Your task to perform on an android device: add a contact in the contacts app Image 0: 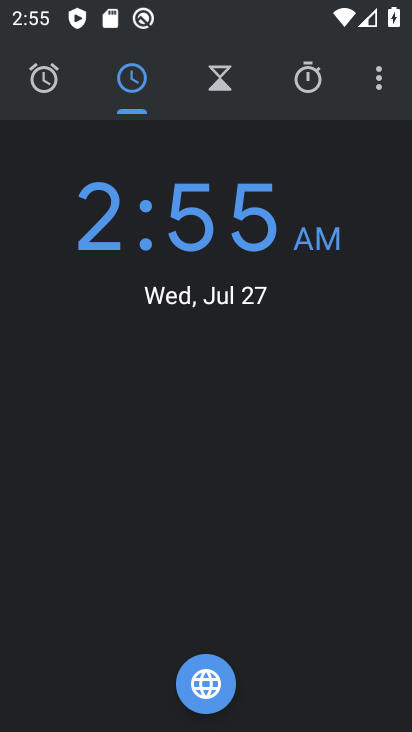
Step 0: press back button
Your task to perform on an android device: add a contact in the contacts app Image 1: 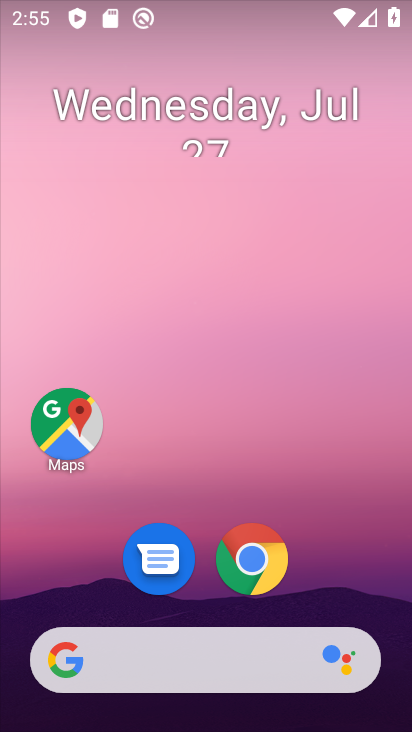
Step 1: drag from (87, 583) to (239, 53)
Your task to perform on an android device: add a contact in the contacts app Image 2: 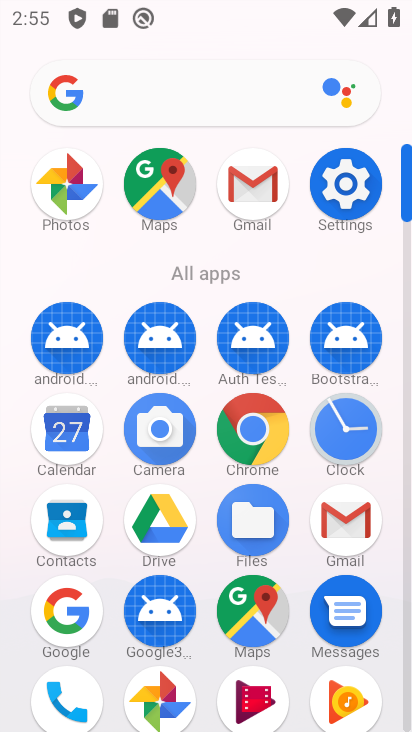
Step 2: click (75, 528)
Your task to perform on an android device: add a contact in the contacts app Image 3: 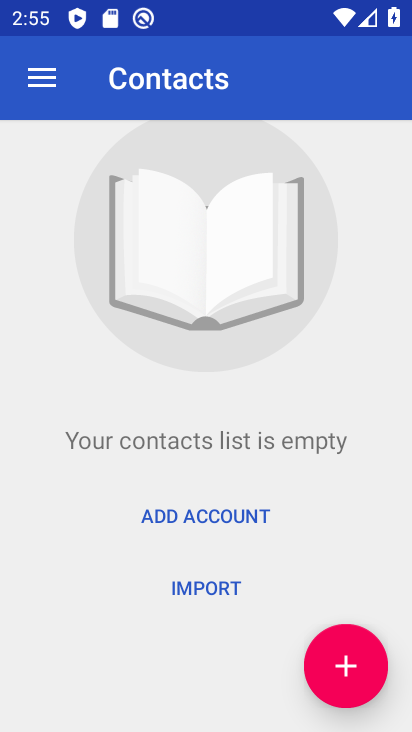
Step 3: click (332, 635)
Your task to perform on an android device: add a contact in the contacts app Image 4: 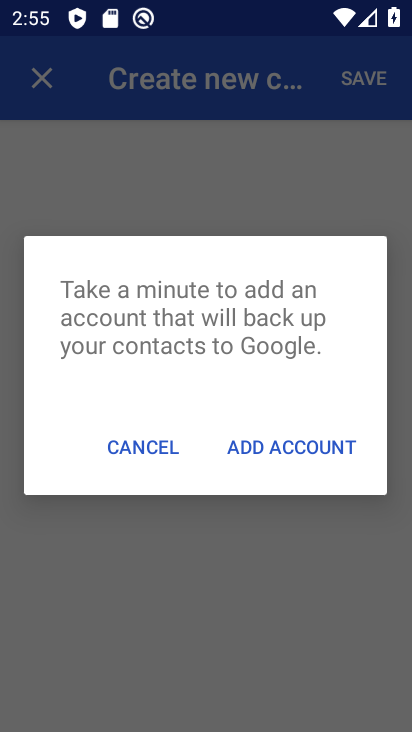
Step 4: click (121, 457)
Your task to perform on an android device: add a contact in the contacts app Image 5: 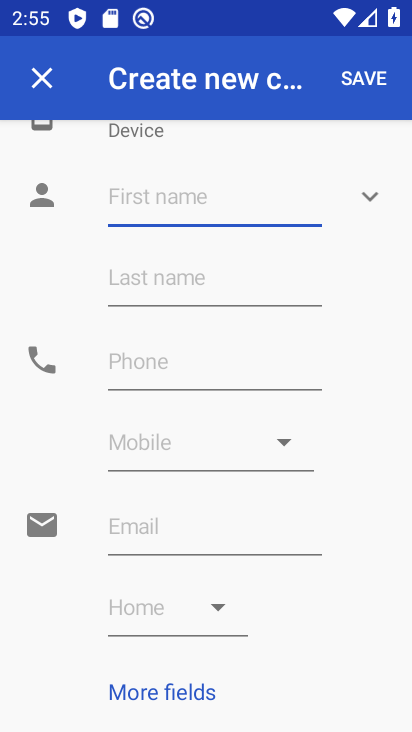
Step 5: click (133, 186)
Your task to perform on an android device: add a contact in the contacts app Image 6: 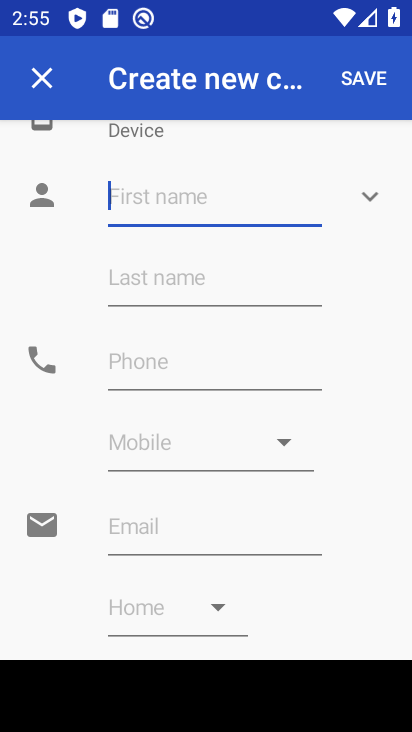
Step 6: type "hhv"
Your task to perform on an android device: add a contact in the contacts app Image 7: 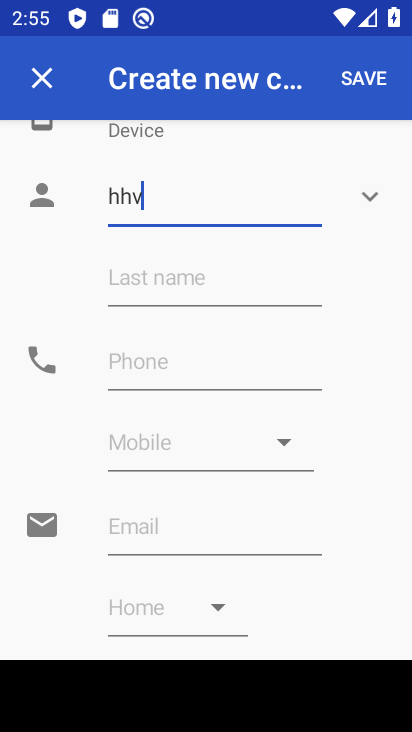
Step 7: click (155, 367)
Your task to perform on an android device: add a contact in the contacts app Image 8: 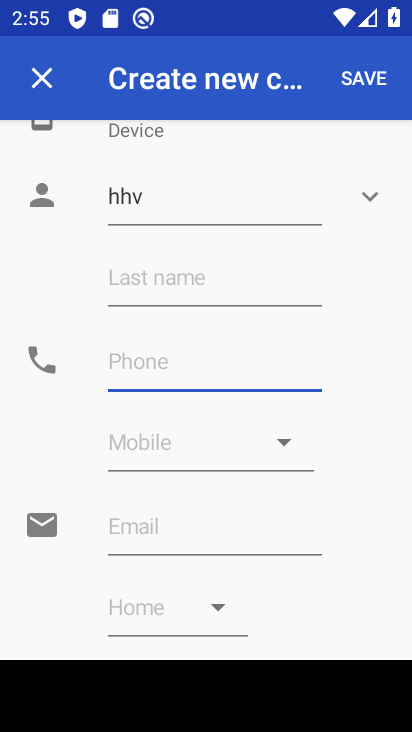
Step 8: type "87878"
Your task to perform on an android device: add a contact in the contacts app Image 9: 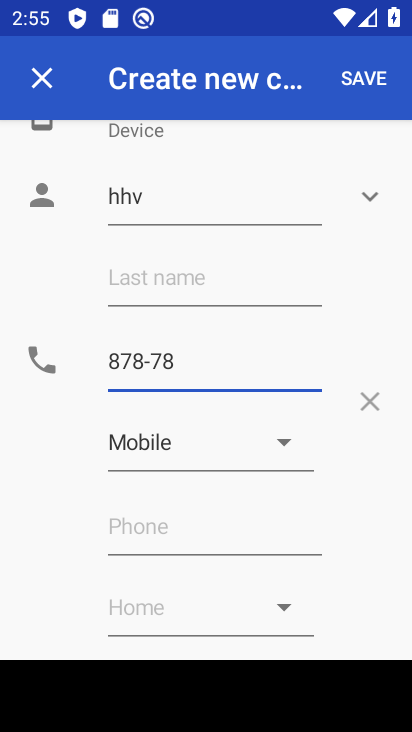
Step 9: click (355, 79)
Your task to perform on an android device: add a contact in the contacts app Image 10: 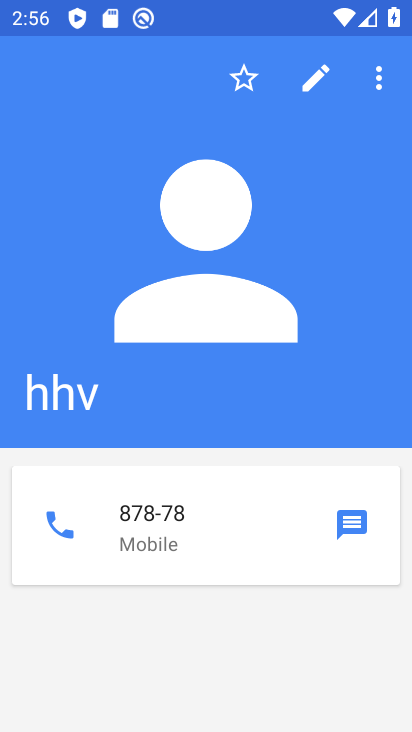
Step 10: task complete